Your task to perform on an android device: turn off picture-in-picture Image 0: 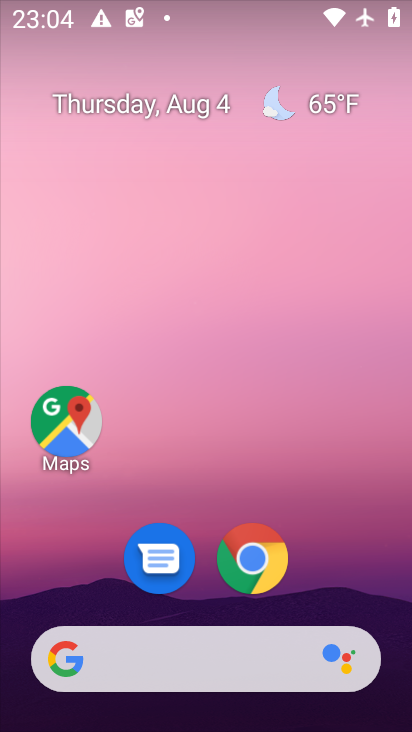
Step 0: click (268, 562)
Your task to perform on an android device: turn off picture-in-picture Image 1: 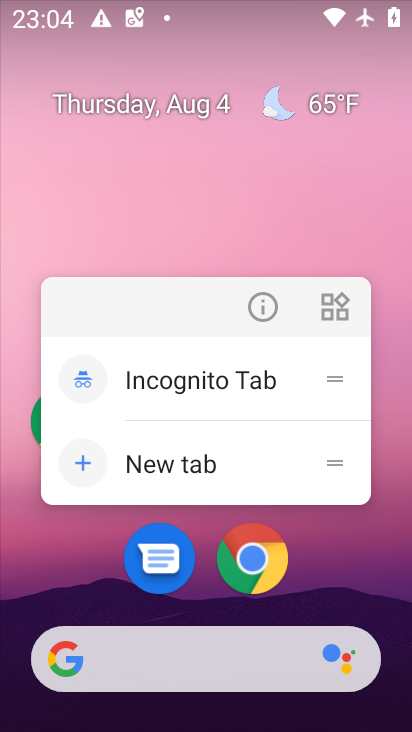
Step 1: click (253, 309)
Your task to perform on an android device: turn off picture-in-picture Image 2: 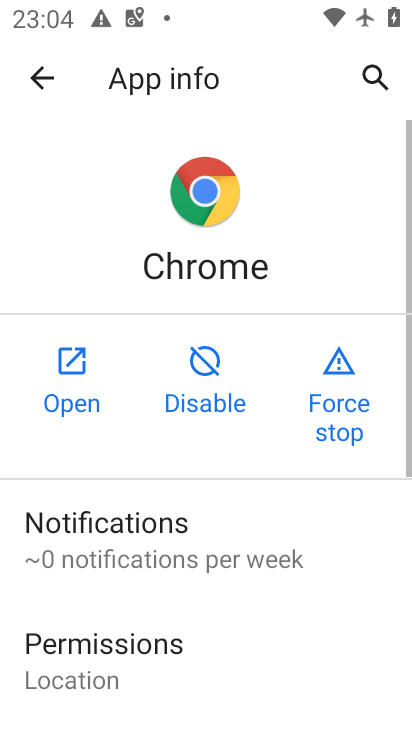
Step 2: drag from (267, 602) to (257, 16)
Your task to perform on an android device: turn off picture-in-picture Image 3: 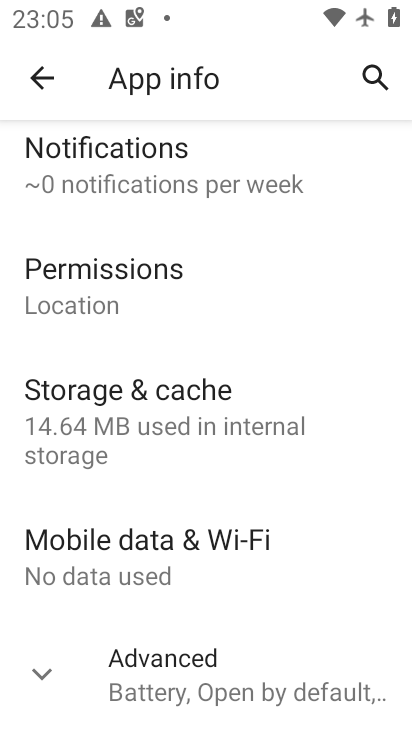
Step 3: click (192, 663)
Your task to perform on an android device: turn off picture-in-picture Image 4: 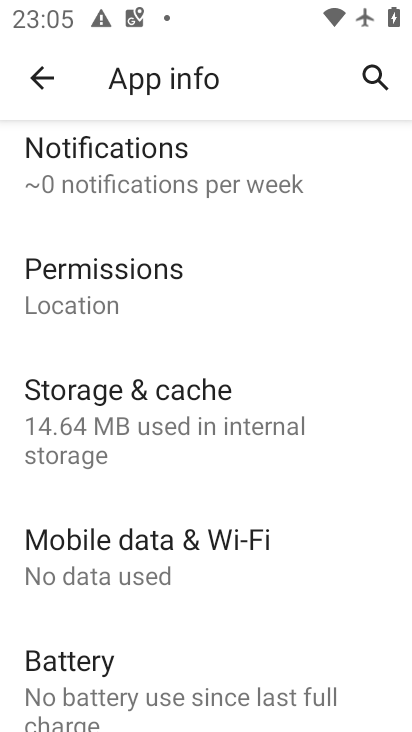
Step 4: drag from (189, 658) to (195, 34)
Your task to perform on an android device: turn off picture-in-picture Image 5: 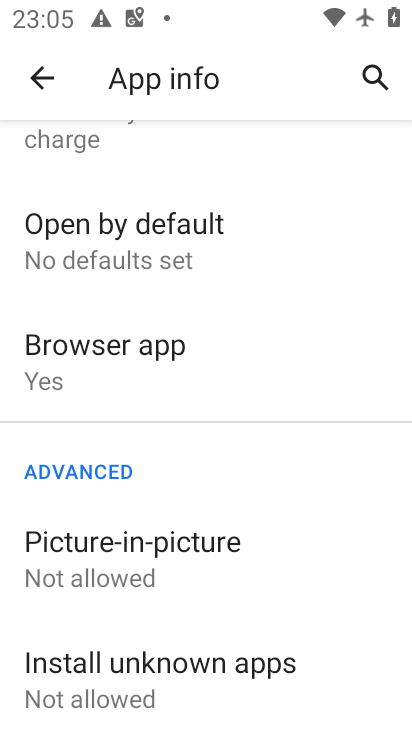
Step 5: click (179, 529)
Your task to perform on an android device: turn off picture-in-picture Image 6: 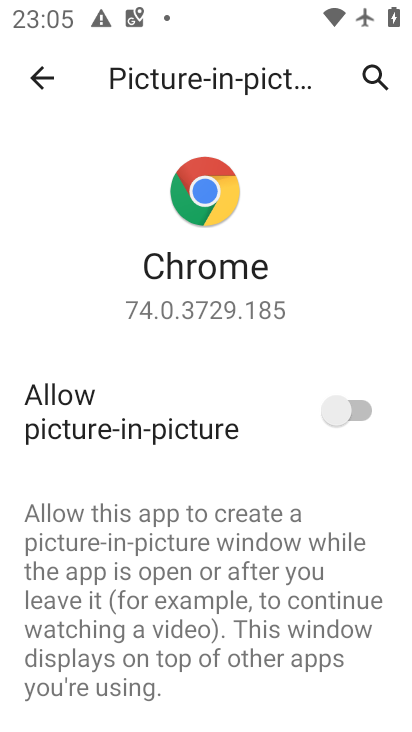
Step 6: task complete